Your task to perform on an android device: turn pop-ups on in chrome Image 0: 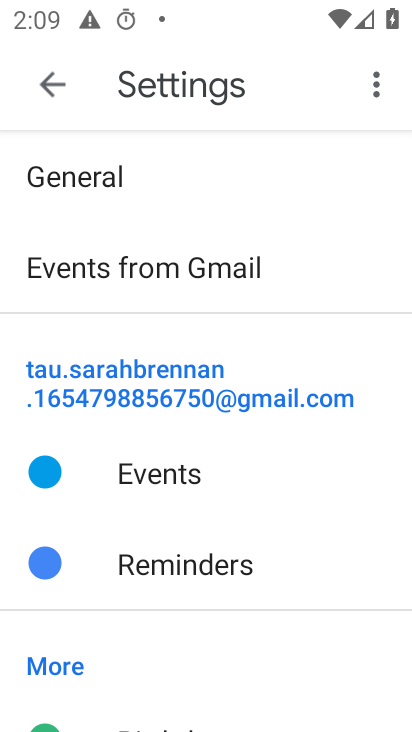
Step 0: press home button
Your task to perform on an android device: turn pop-ups on in chrome Image 1: 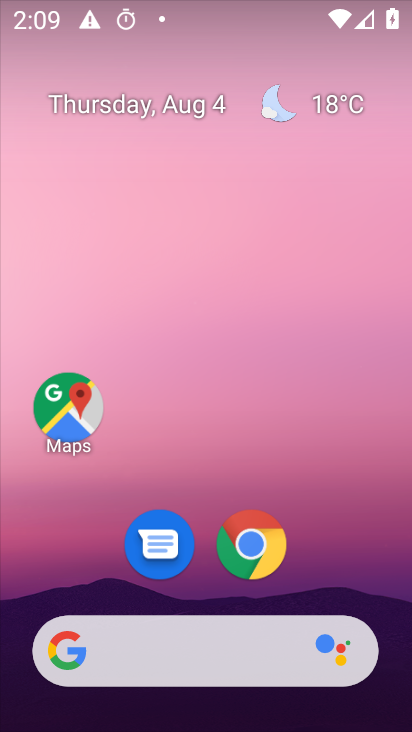
Step 1: click (262, 544)
Your task to perform on an android device: turn pop-ups on in chrome Image 2: 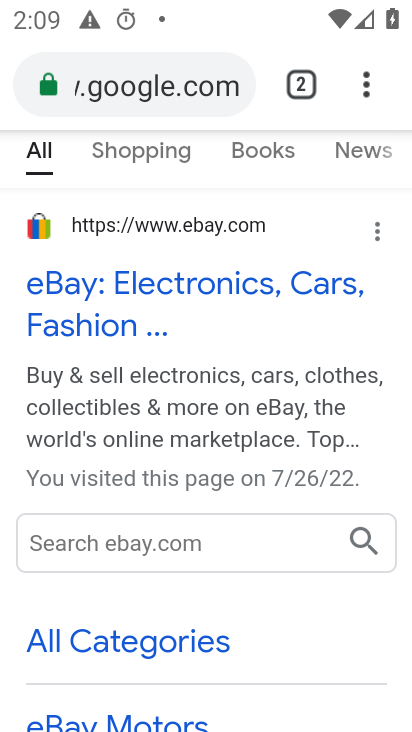
Step 2: click (364, 88)
Your task to perform on an android device: turn pop-ups on in chrome Image 3: 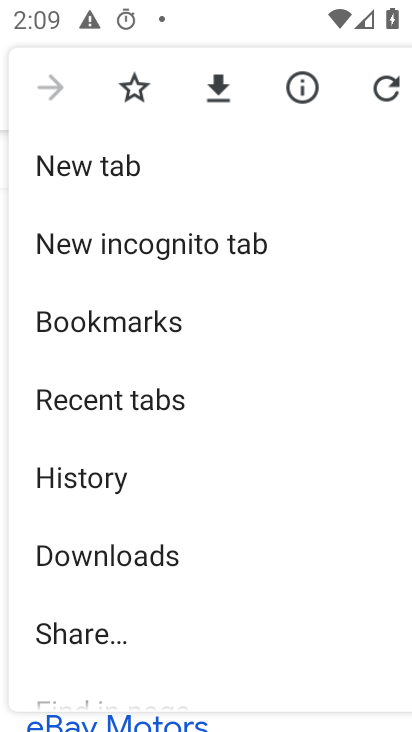
Step 3: drag from (222, 667) to (239, 65)
Your task to perform on an android device: turn pop-ups on in chrome Image 4: 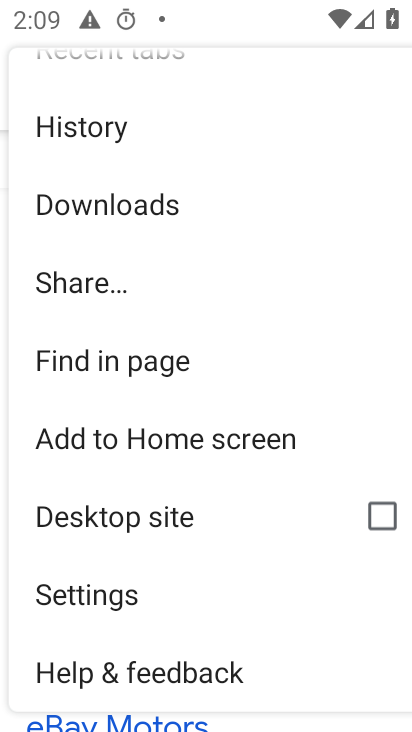
Step 4: click (90, 584)
Your task to perform on an android device: turn pop-ups on in chrome Image 5: 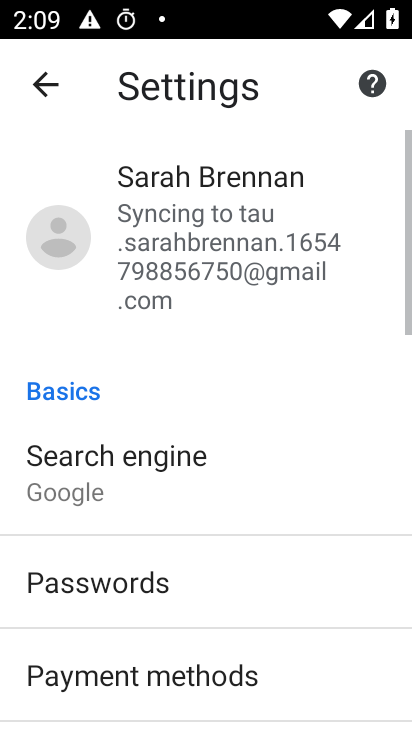
Step 5: drag from (307, 649) to (300, 121)
Your task to perform on an android device: turn pop-ups on in chrome Image 6: 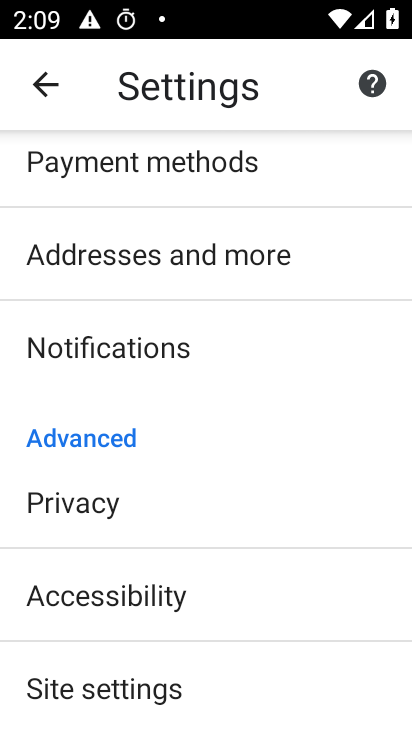
Step 6: click (47, 684)
Your task to perform on an android device: turn pop-ups on in chrome Image 7: 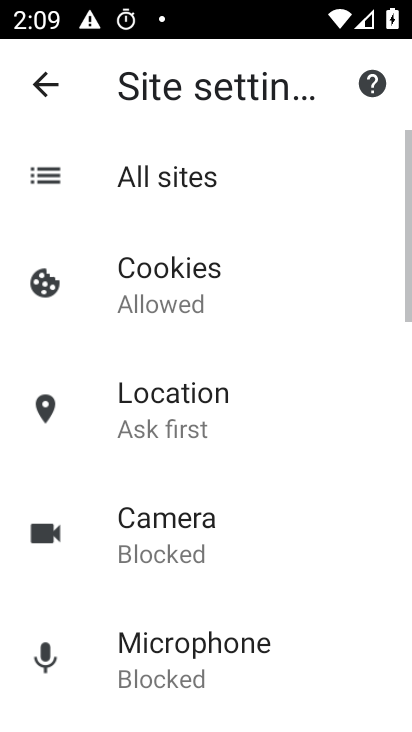
Step 7: drag from (246, 682) to (285, 321)
Your task to perform on an android device: turn pop-ups on in chrome Image 8: 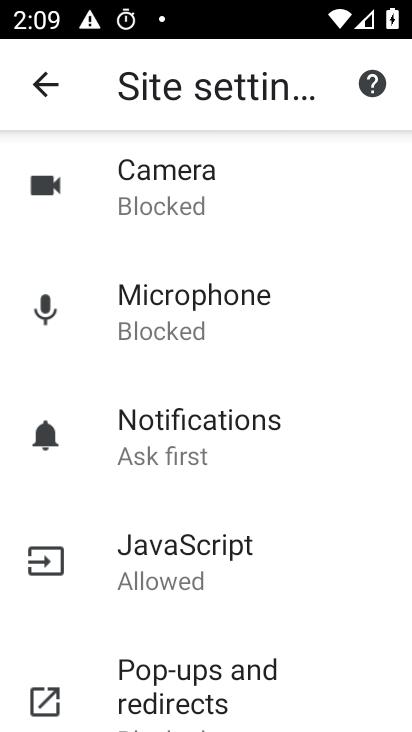
Step 8: click (121, 683)
Your task to perform on an android device: turn pop-ups on in chrome Image 9: 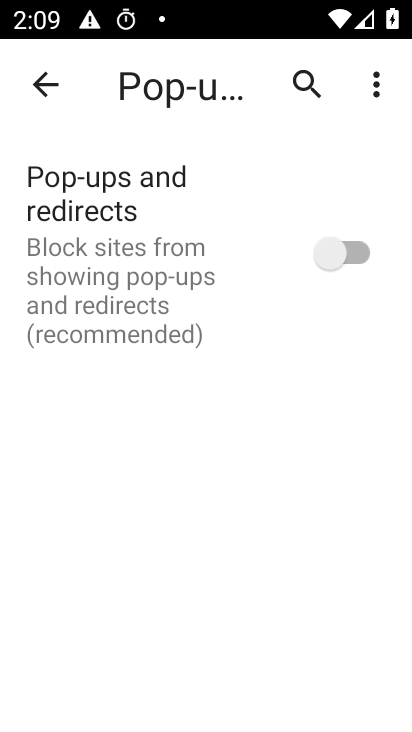
Step 9: click (351, 253)
Your task to perform on an android device: turn pop-ups on in chrome Image 10: 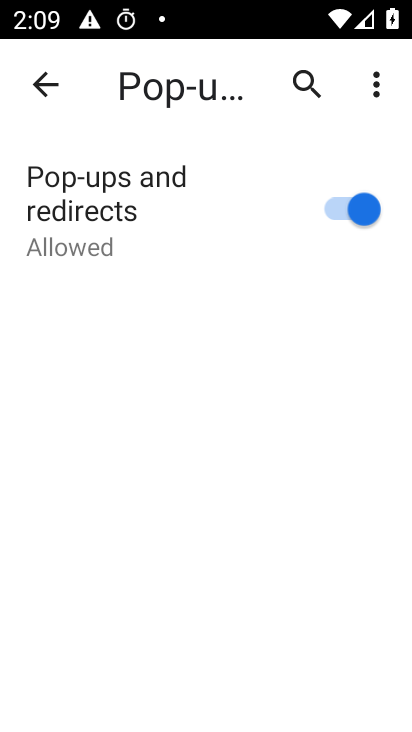
Step 10: task complete